Your task to perform on an android device: turn on showing notifications on the lock screen Image 0: 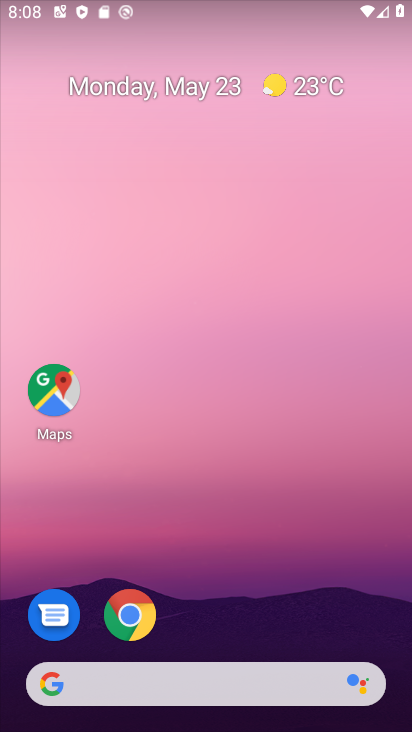
Step 0: drag from (263, 570) to (273, 123)
Your task to perform on an android device: turn on showing notifications on the lock screen Image 1: 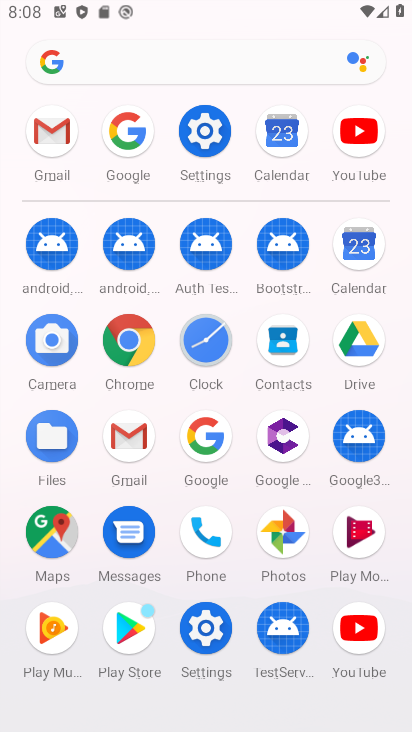
Step 1: click (204, 130)
Your task to perform on an android device: turn on showing notifications on the lock screen Image 2: 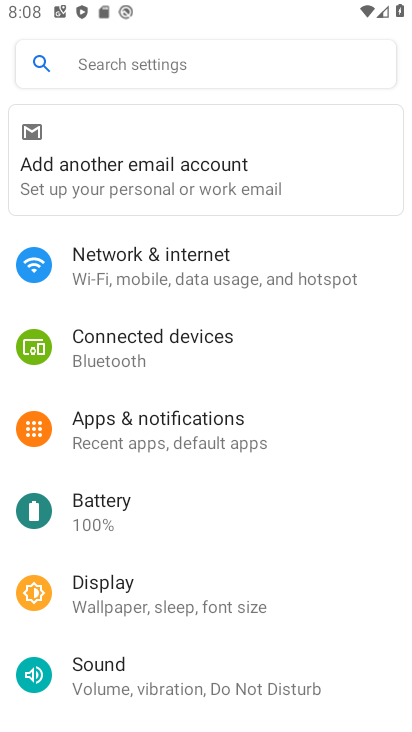
Step 2: click (149, 425)
Your task to perform on an android device: turn on showing notifications on the lock screen Image 3: 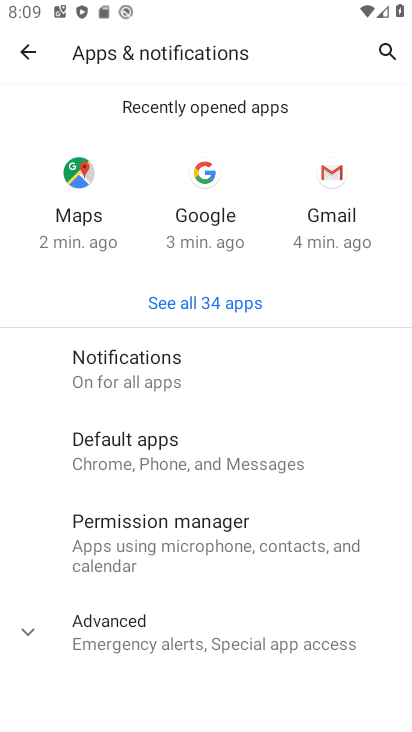
Step 3: click (153, 367)
Your task to perform on an android device: turn on showing notifications on the lock screen Image 4: 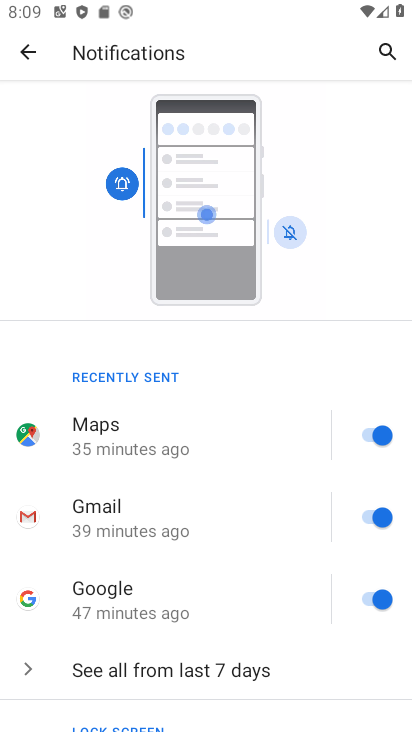
Step 4: drag from (125, 637) to (178, 513)
Your task to perform on an android device: turn on showing notifications on the lock screen Image 5: 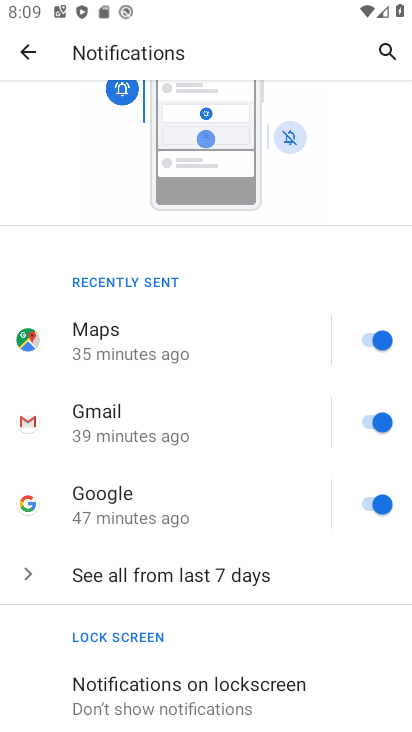
Step 5: drag from (211, 633) to (246, 540)
Your task to perform on an android device: turn on showing notifications on the lock screen Image 6: 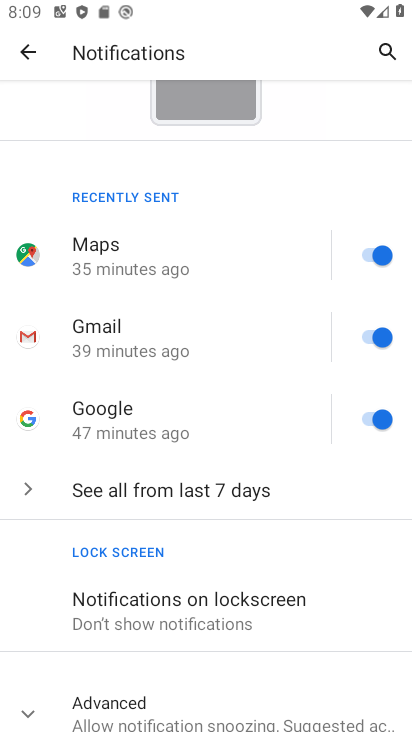
Step 6: click (195, 599)
Your task to perform on an android device: turn on showing notifications on the lock screen Image 7: 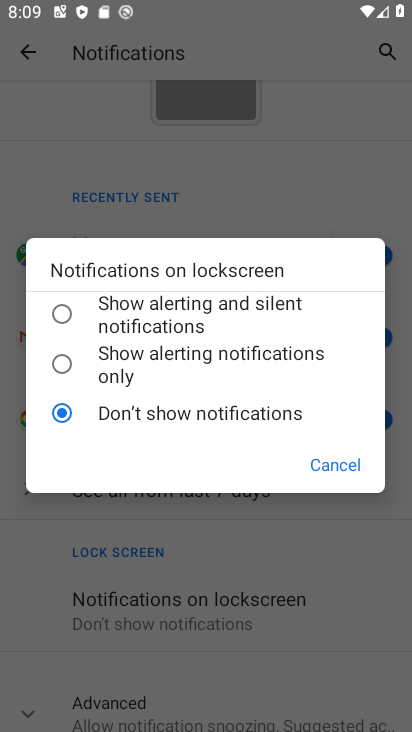
Step 7: click (62, 325)
Your task to perform on an android device: turn on showing notifications on the lock screen Image 8: 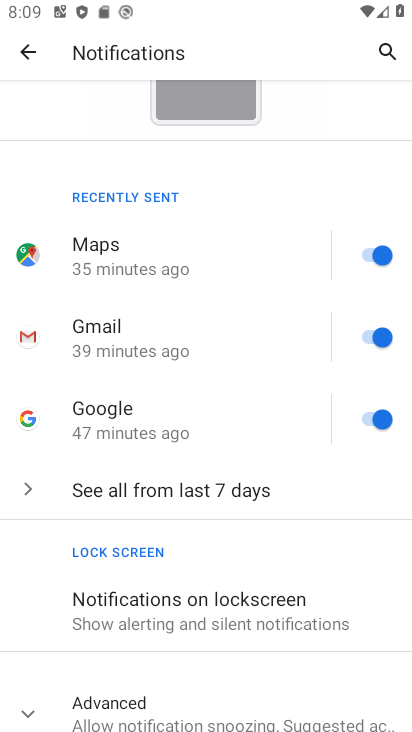
Step 8: task complete